Your task to perform on an android device: Do I have any events today? Image 0: 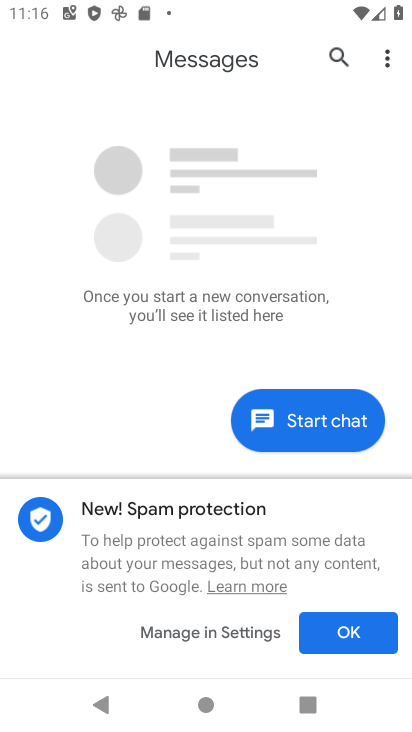
Step 0: press home button
Your task to perform on an android device: Do I have any events today? Image 1: 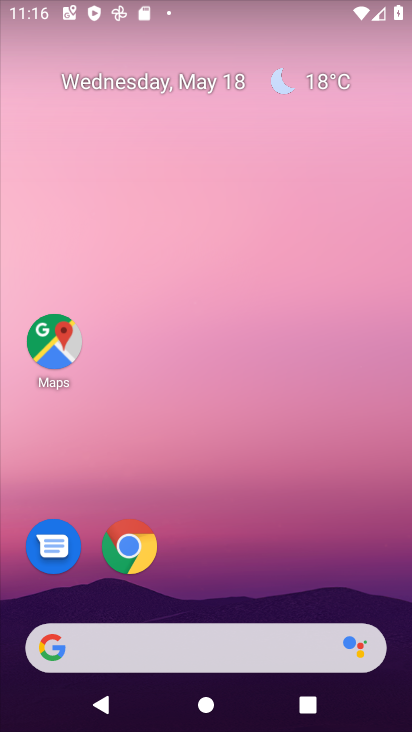
Step 1: drag from (239, 727) to (252, 173)
Your task to perform on an android device: Do I have any events today? Image 2: 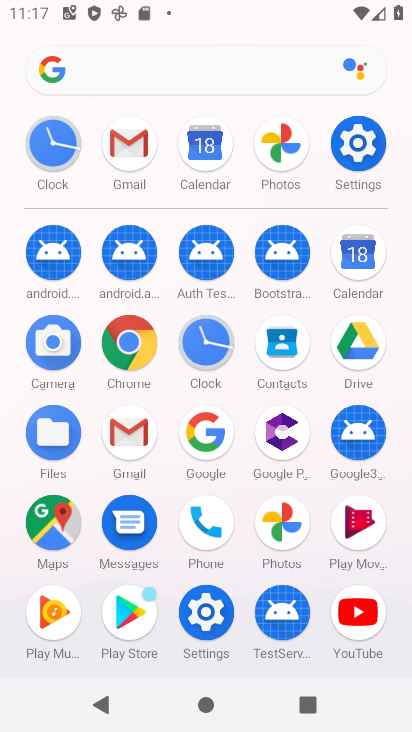
Step 2: click (362, 254)
Your task to perform on an android device: Do I have any events today? Image 3: 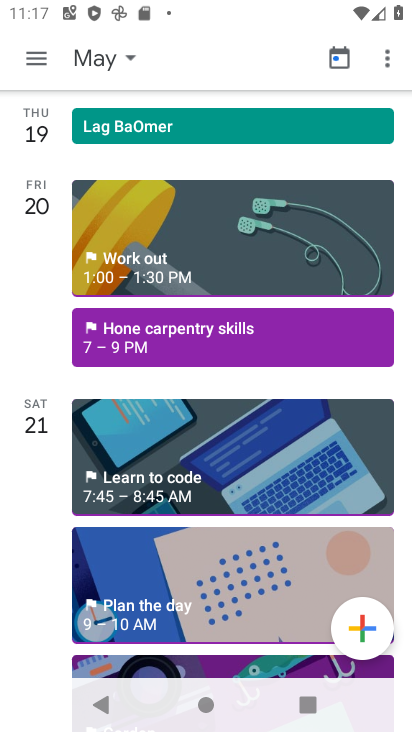
Step 3: click (94, 54)
Your task to perform on an android device: Do I have any events today? Image 4: 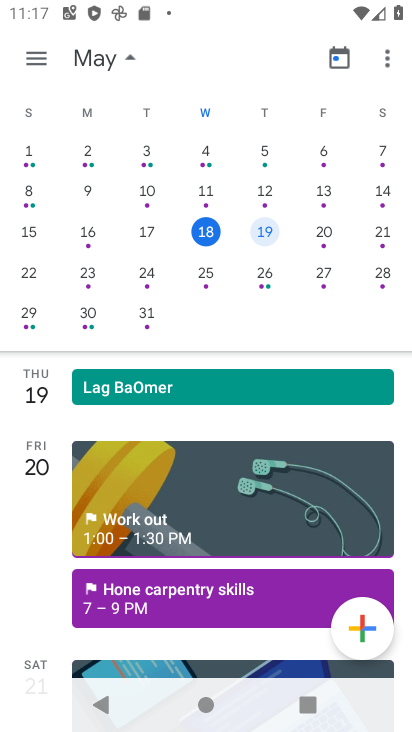
Step 4: click (210, 234)
Your task to perform on an android device: Do I have any events today? Image 5: 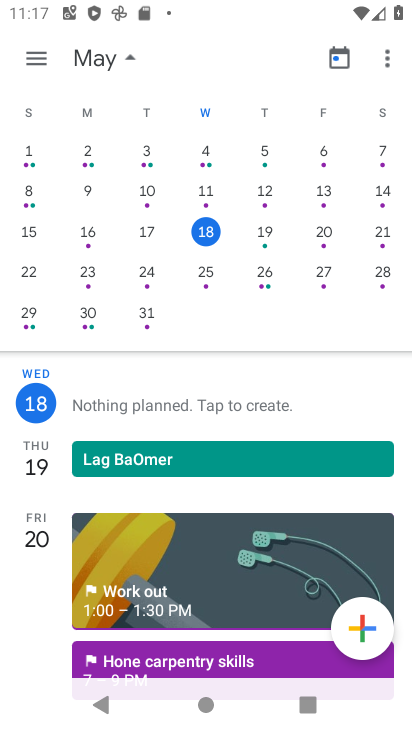
Step 5: click (127, 51)
Your task to perform on an android device: Do I have any events today? Image 6: 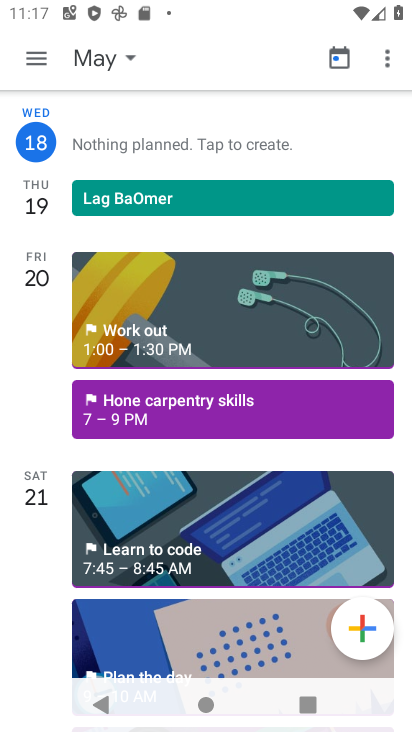
Step 6: task complete